Your task to perform on an android device: Go to sound settings Image 0: 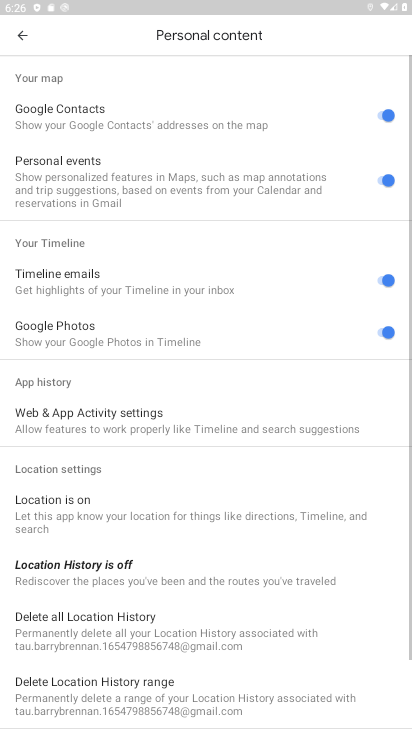
Step 0: press home button
Your task to perform on an android device: Go to sound settings Image 1: 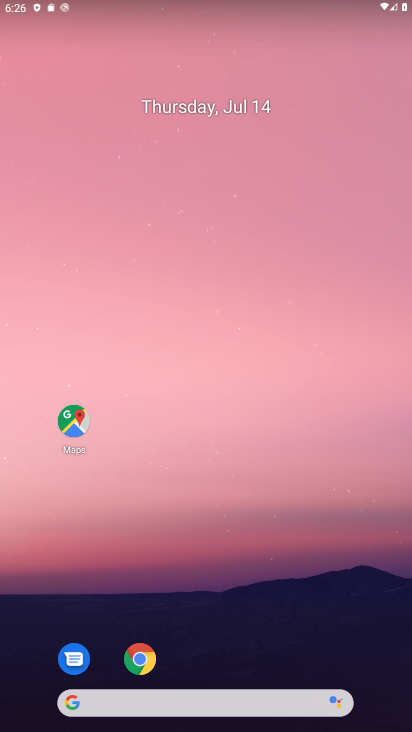
Step 1: drag from (267, 664) to (297, 254)
Your task to perform on an android device: Go to sound settings Image 2: 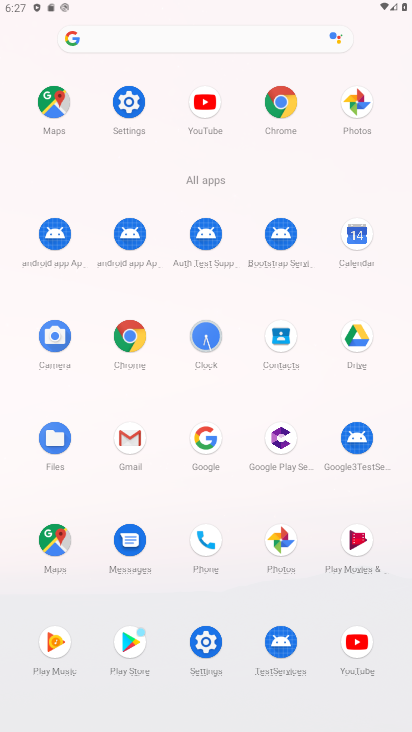
Step 2: click (112, 80)
Your task to perform on an android device: Go to sound settings Image 3: 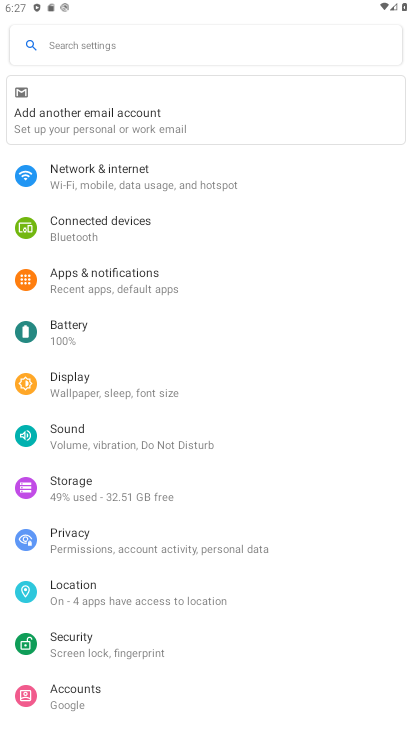
Step 3: click (93, 430)
Your task to perform on an android device: Go to sound settings Image 4: 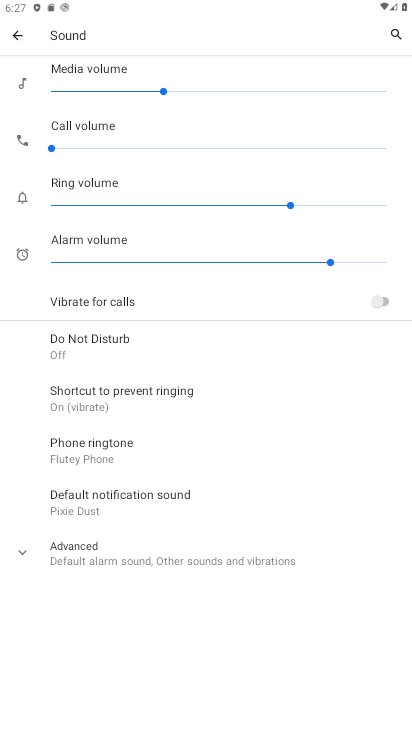
Step 4: task complete